Your task to perform on an android device: Open eBay Image 0: 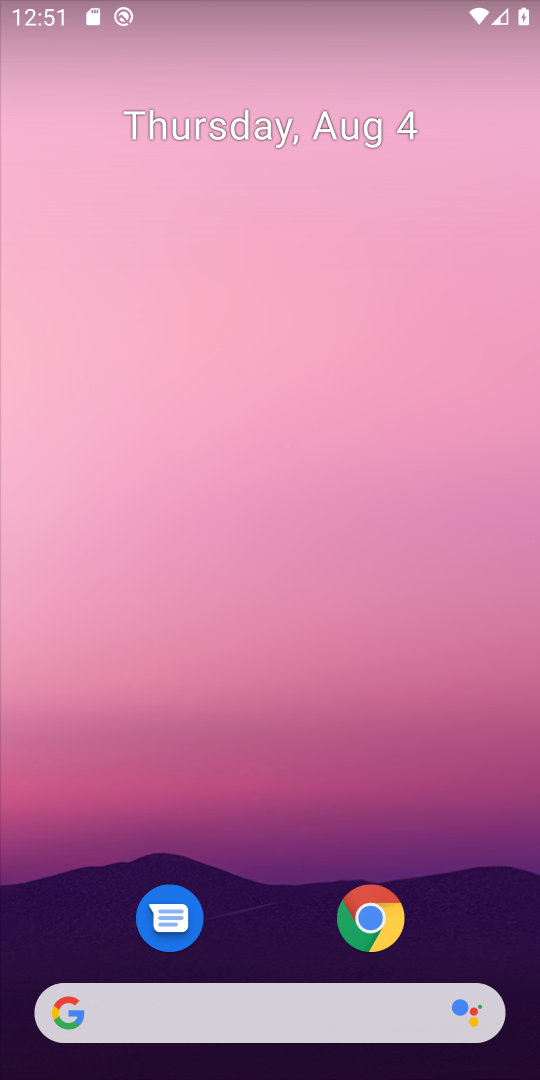
Step 0: click (365, 916)
Your task to perform on an android device: Open eBay Image 1: 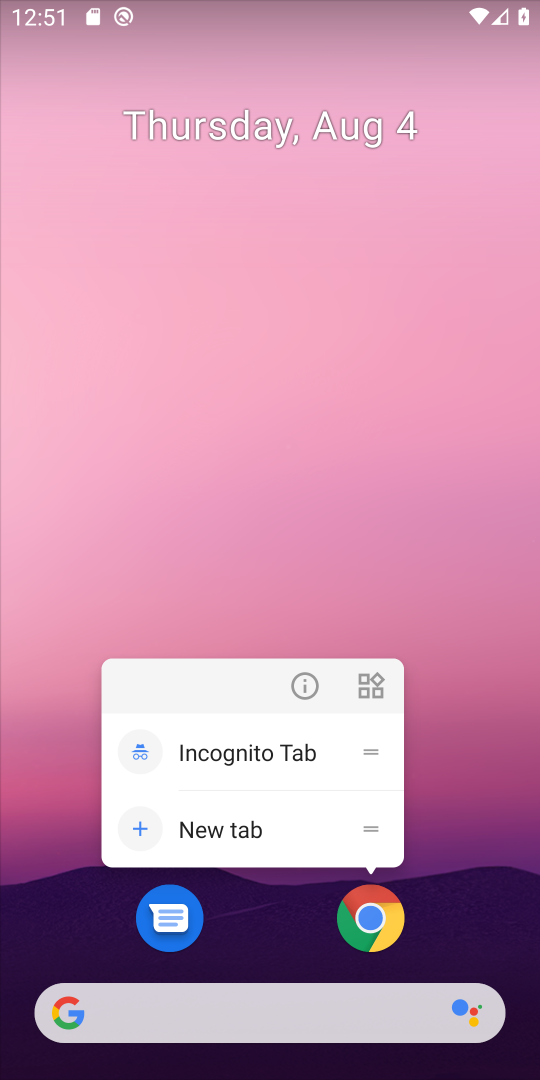
Step 1: click (382, 934)
Your task to perform on an android device: Open eBay Image 2: 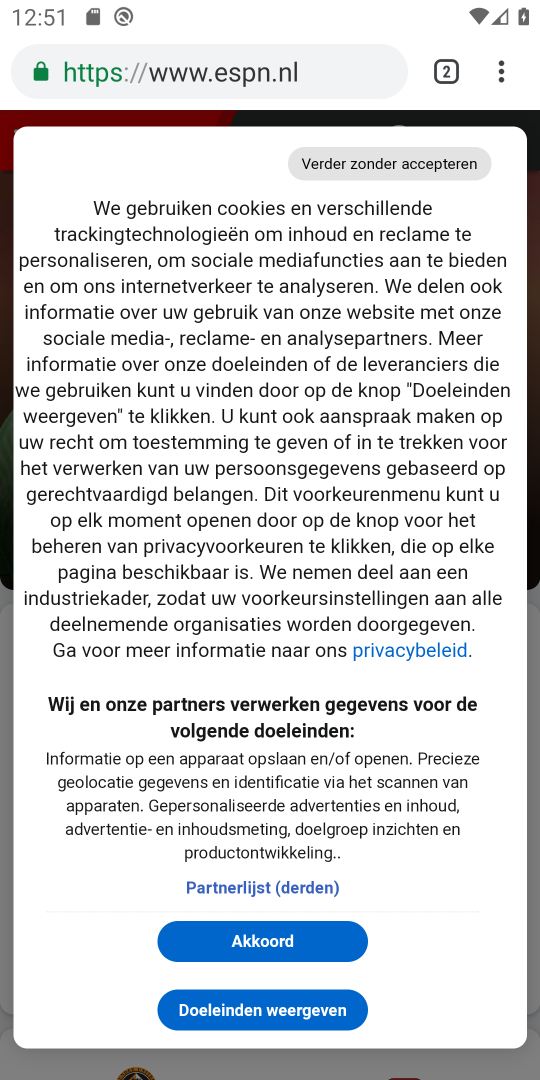
Step 2: click (447, 81)
Your task to perform on an android device: Open eBay Image 3: 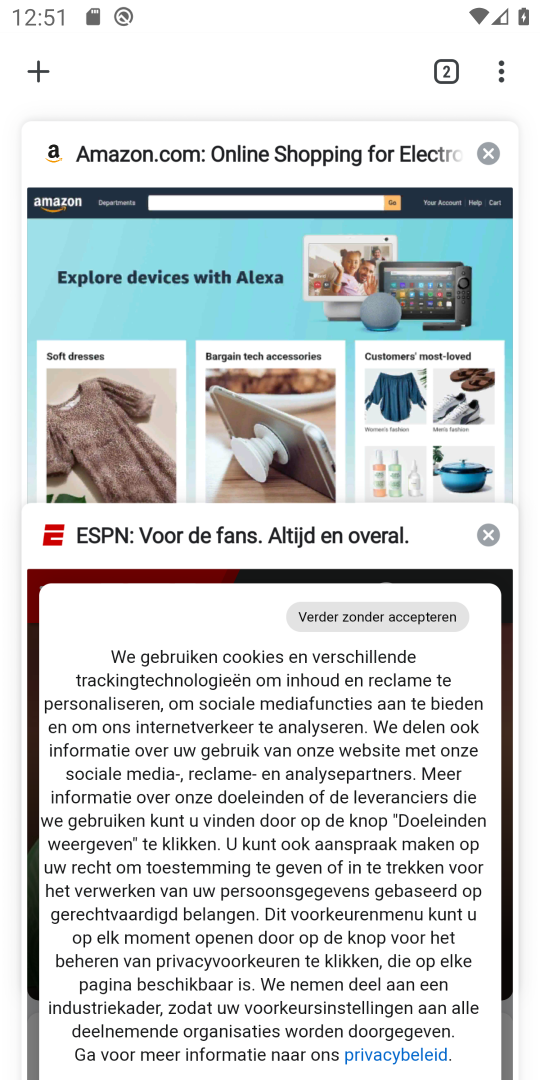
Step 3: click (42, 63)
Your task to perform on an android device: Open eBay Image 4: 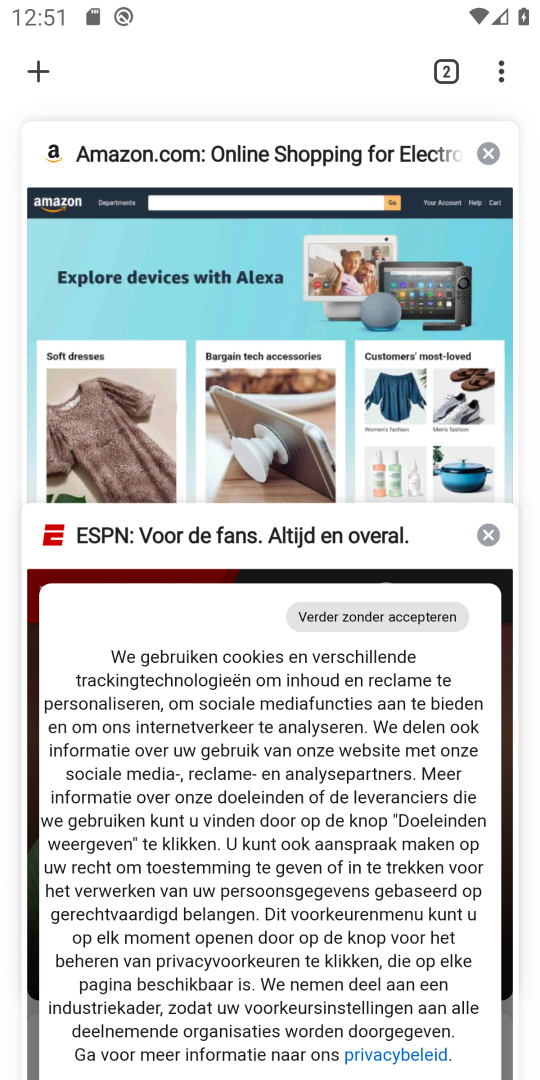
Step 4: click (29, 67)
Your task to perform on an android device: Open eBay Image 5: 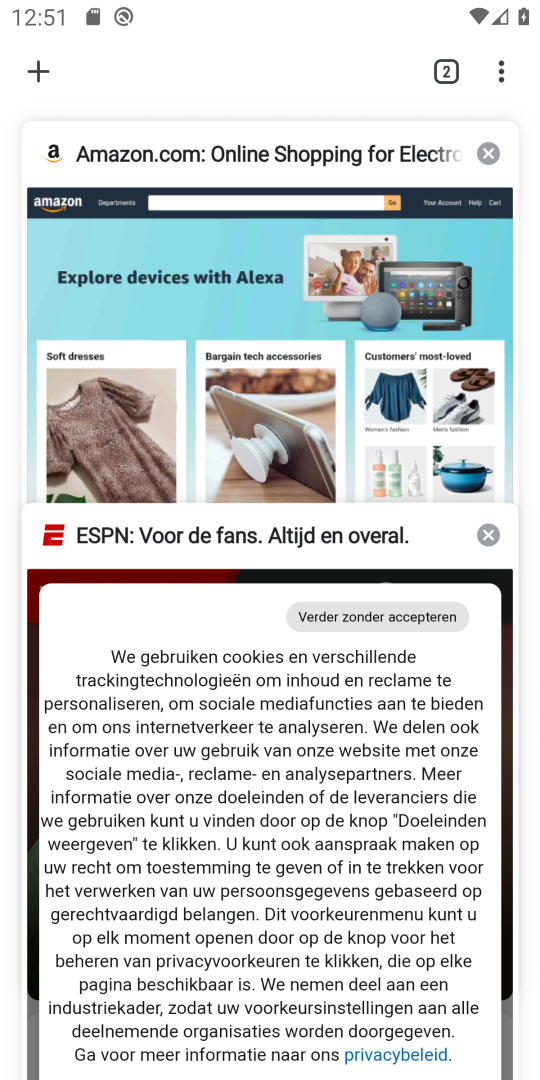
Step 5: click (51, 62)
Your task to perform on an android device: Open eBay Image 6: 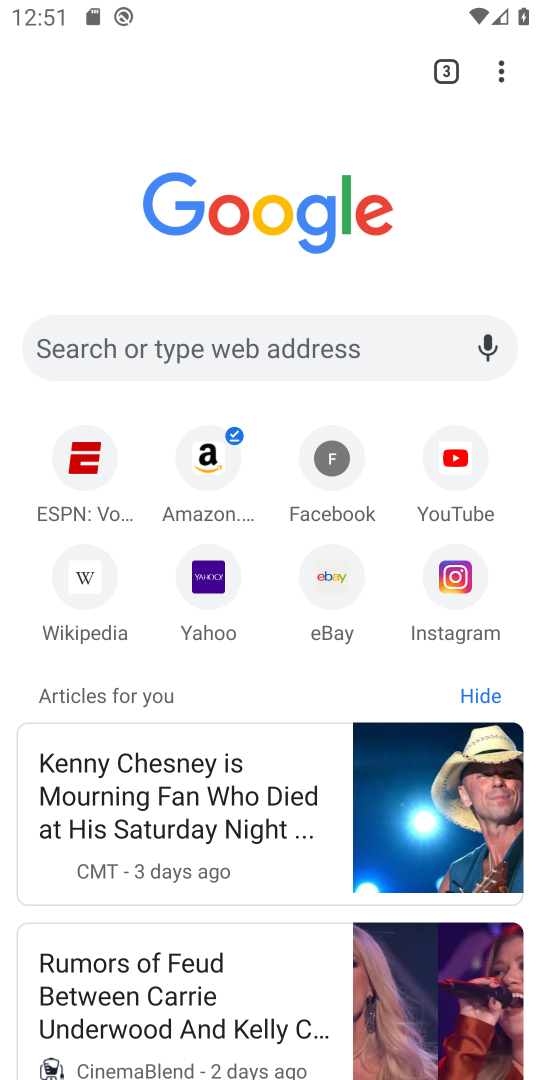
Step 6: click (325, 603)
Your task to perform on an android device: Open eBay Image 7: 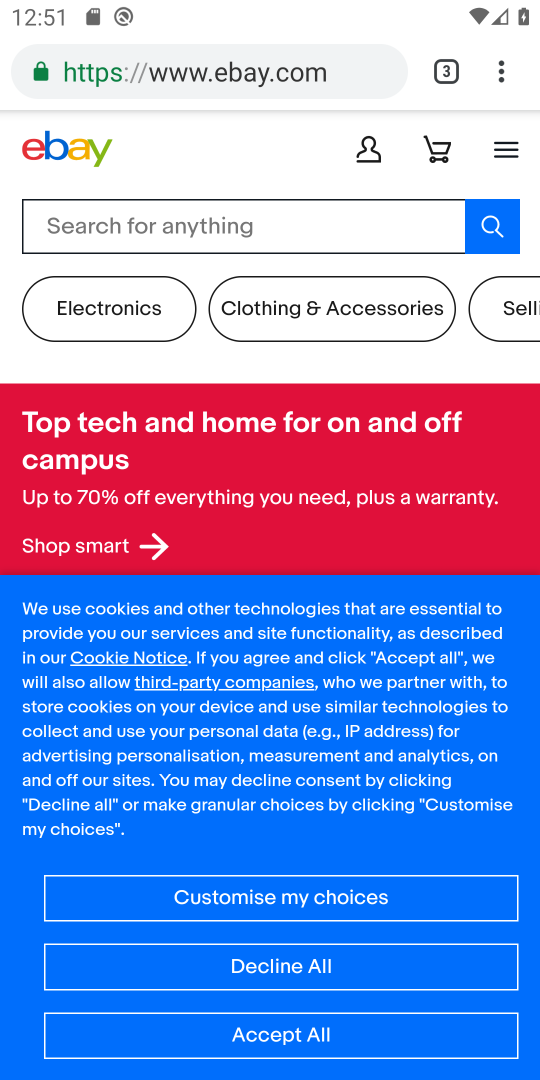
Step 7: task complete